Your task to perform on an android device: Open maps Image 0: 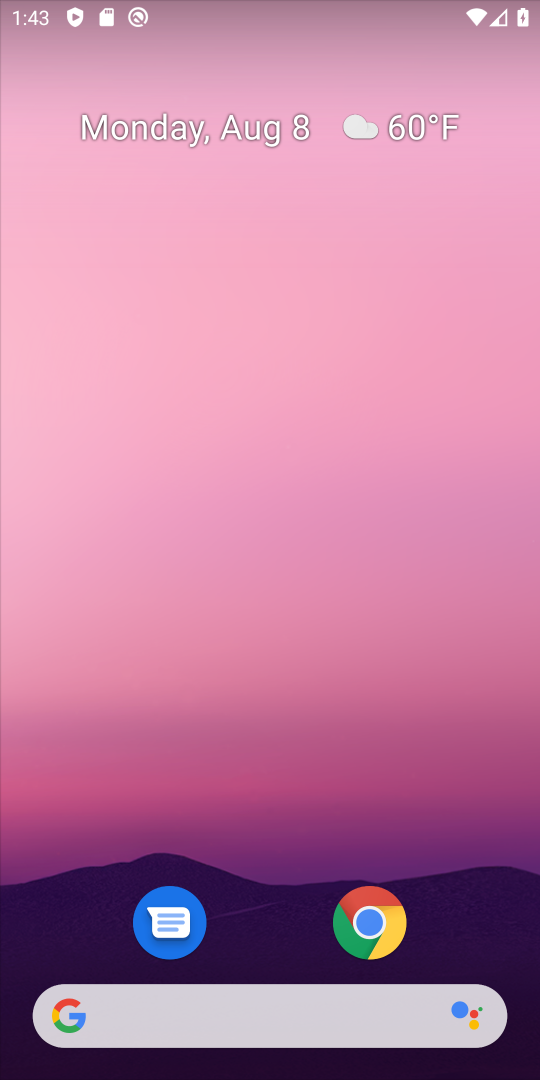
Step 0: drag from (432, 468) to (334, 7)
Your task to perform on an android device: Open maps Image 1: 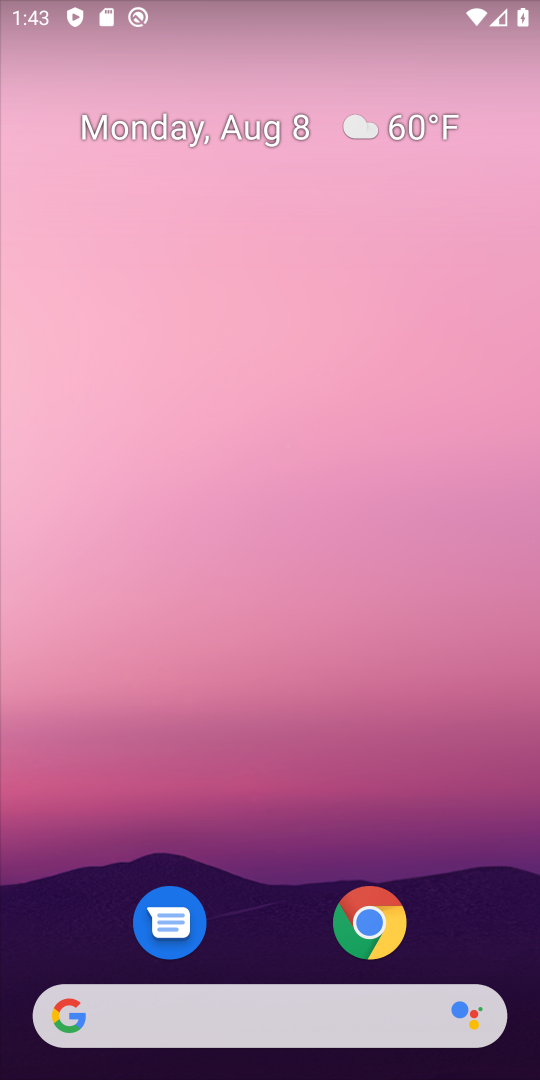
Step 1: drag from (266, 526) to (256, 182)
Your task to perform on an android device: Open maps Image 2: 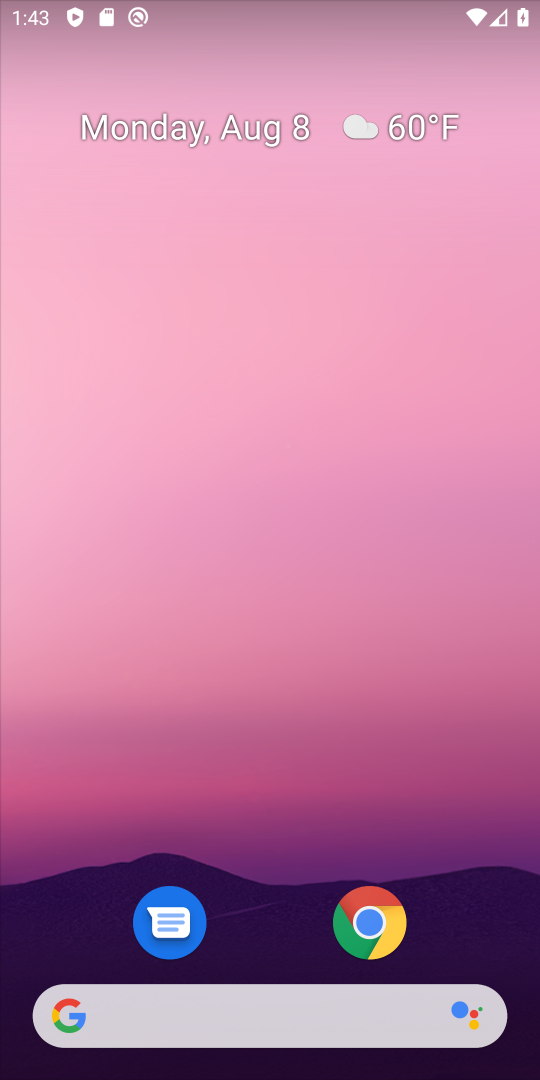
Step 2: drag from (252, 441) to (268, 92)
Your task to perform on an android device: Open maps Image 3: 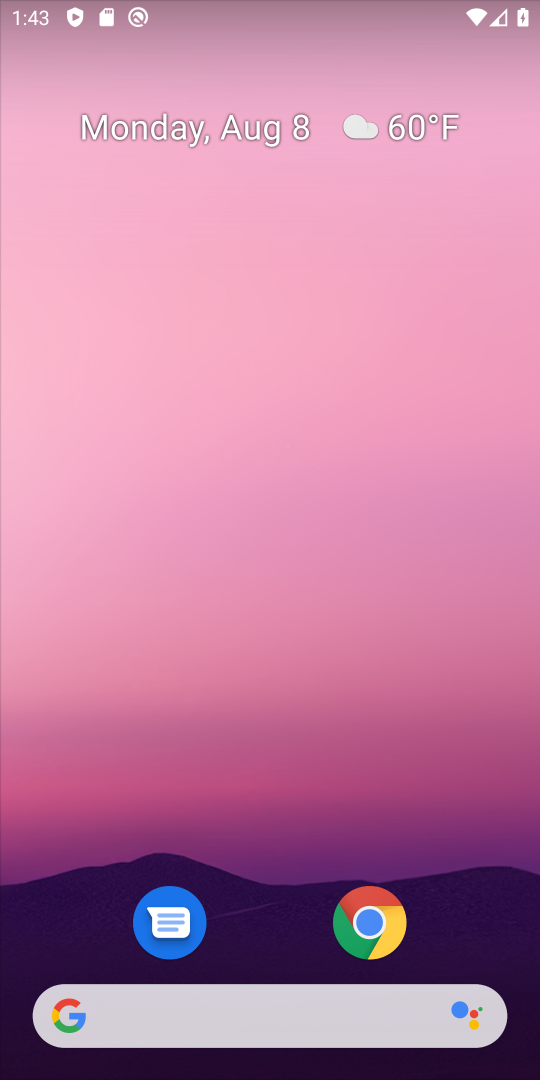
Step 3: drag from (270, 485) to (297, 4)
Your task to perform on an android device: Open maps Image 4: 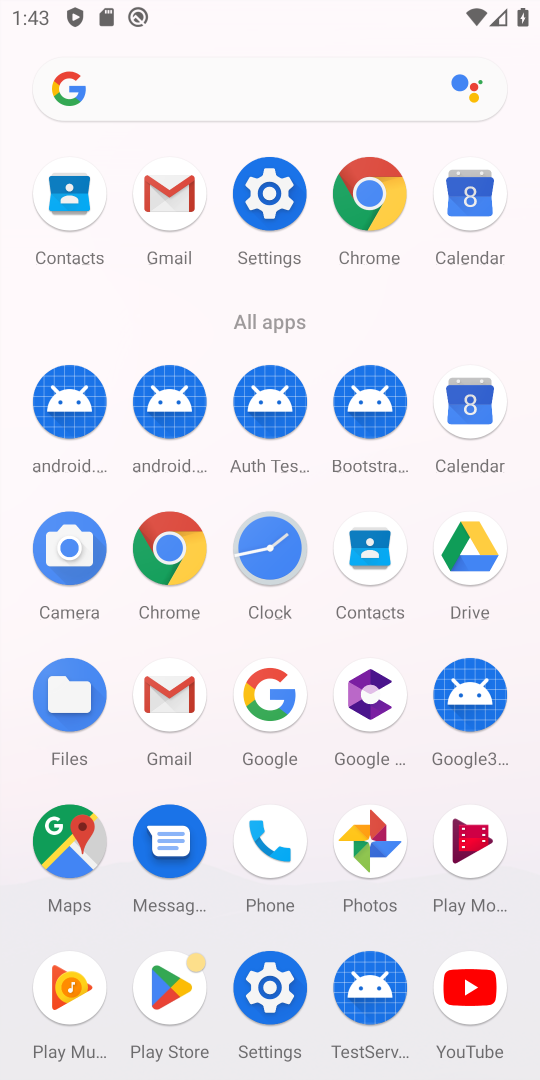
Step 4: click (52, 835)
Your task to perform on an android device: Open maps Image 5: 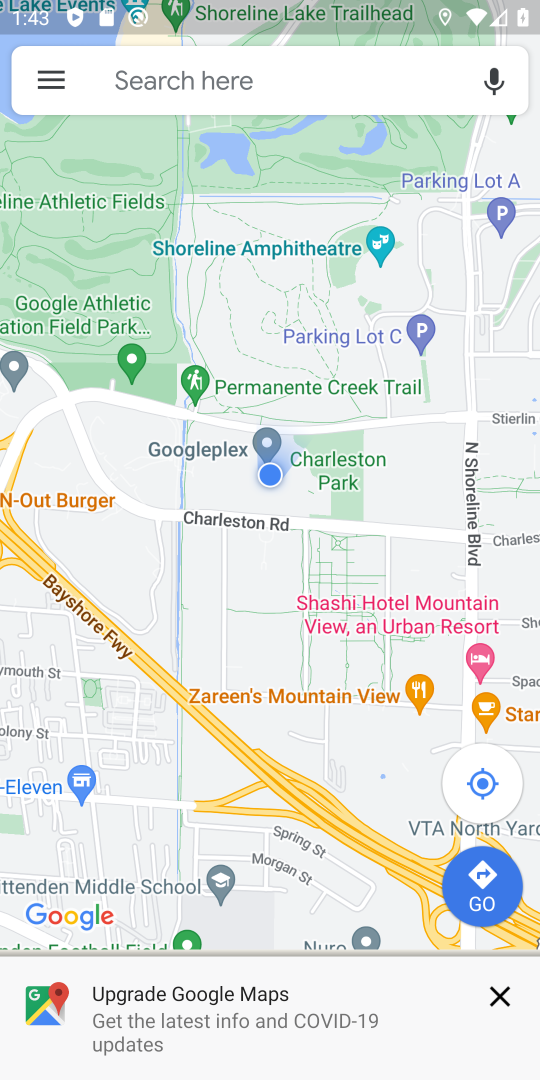
Step 5: task complete